Your task to perform on an android device: Search for vegetarian restaurants on Maps Image 0: 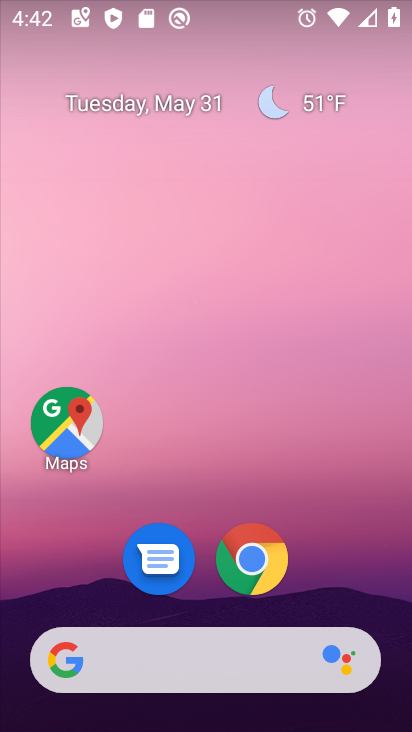
Step 0: click (69, 410)
Your task to perform on an android device: Search for vegetarian restaurants on Maps Image 1: 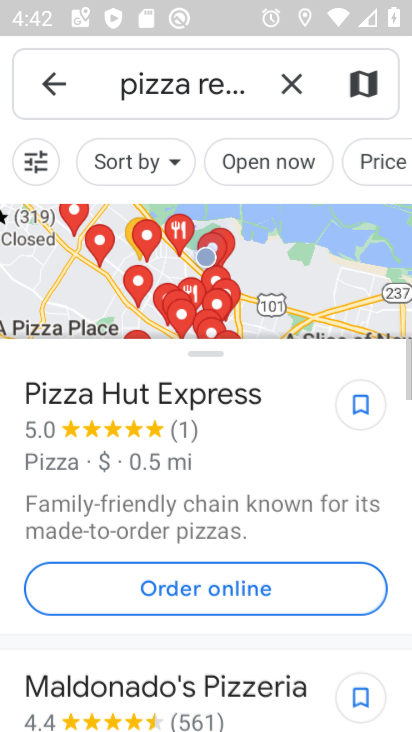
Step 1: click (287, 93)
Your task to perform on an android device: Search for vegetarian restaurants on Maps Image 2: 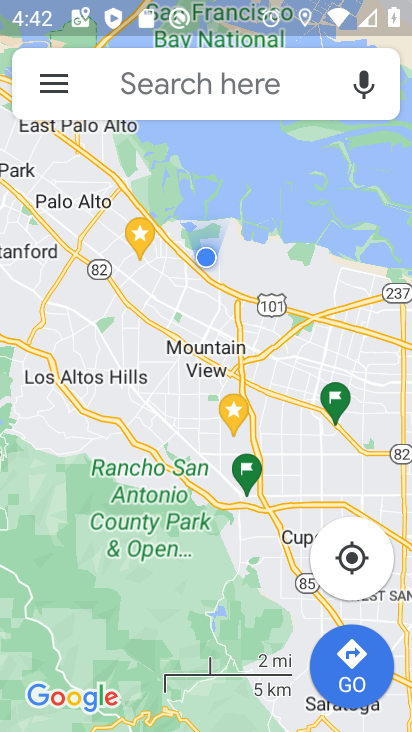
Step 2: click (202, 86)
Your task to perform on an android device: Search for vegetarian restaurants on Maps Image 3: 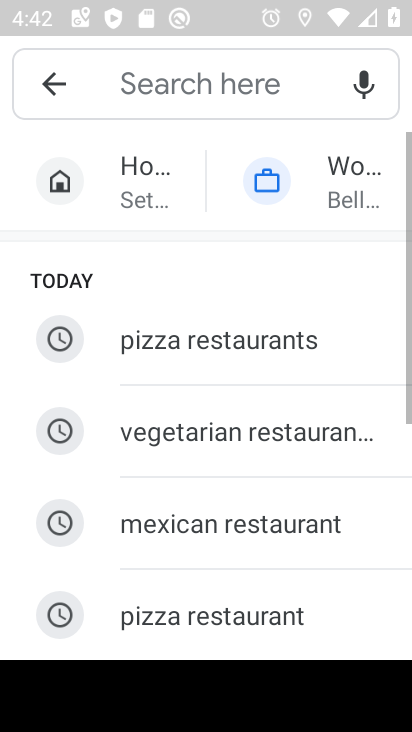
Step 3: click (269, 443)
Your task to perform on an android device: Search for vegetarian restaurants on Maps Image 4: 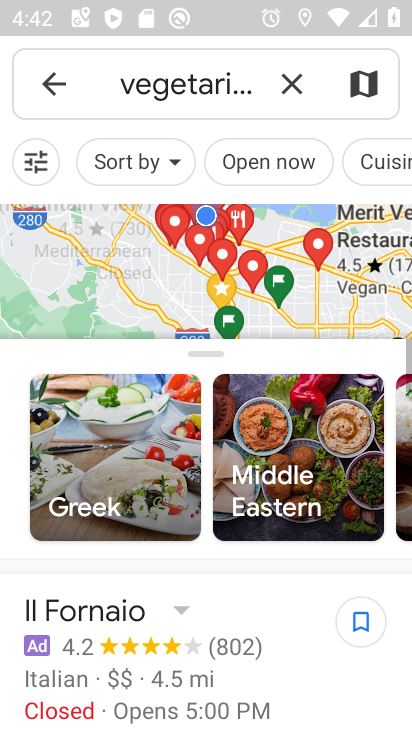
Step 4: task complete